Your task to perform on an android device: change the clock display to digital Image 0: 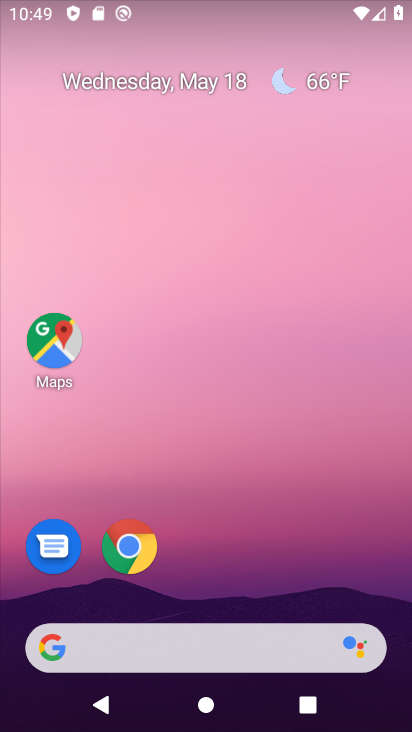
Step 0: drag from (223, 723) to (241, 86)
Your task to perform on an android device: change the clock display to digital Image 1: 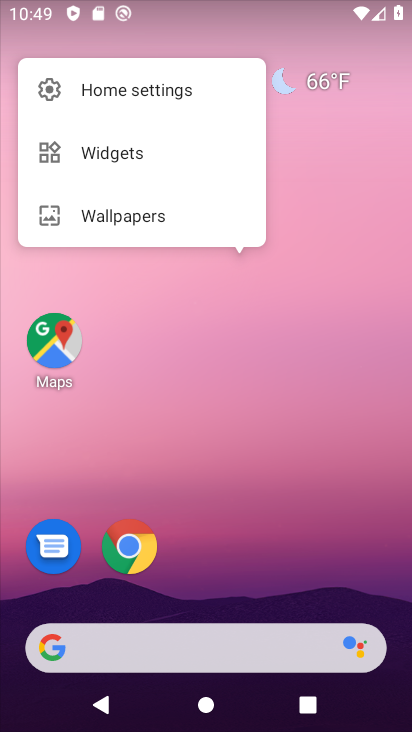
Step 1: click (229, 322)
Your task to perform on an android device: change the clock display to digital Image 2: 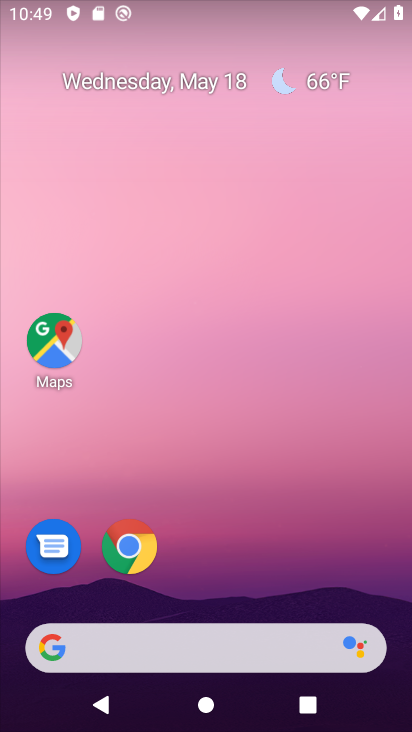
Step 2: drag from (225, 726) to (230, 145)
Your task to perform on an android device: change the clock display to digital Image 3: 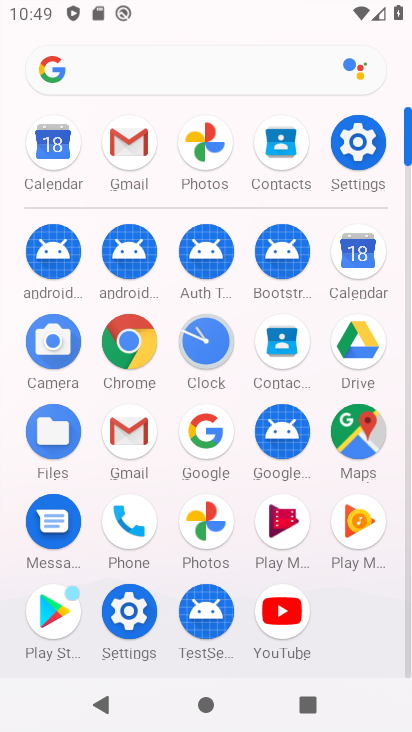
Step 3: click (205, 346)
Your task to perform on an android device: change the clock display to digital Image 4: 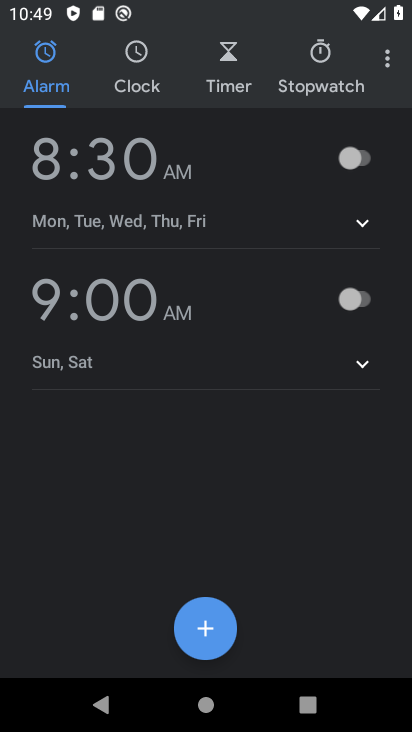
Step 4: click (388, 66)
Your task to perform on an android device: change the clock display to digital Image 5: 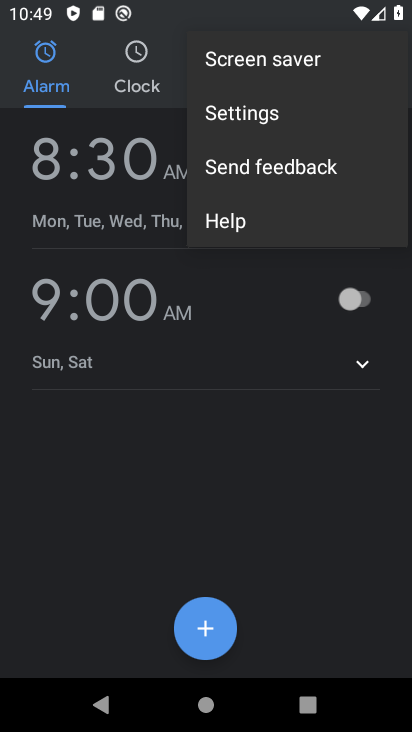
Step 5: click (234, 113)
Your task to perform on an android device: change the clock display to digital Image 6: 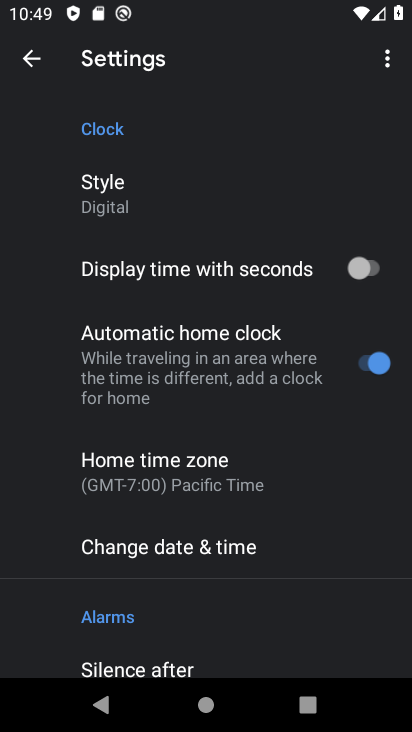
Step 6: task complete